Your task to perform on an android device: choose inbox layout in the gmail app Image 0: 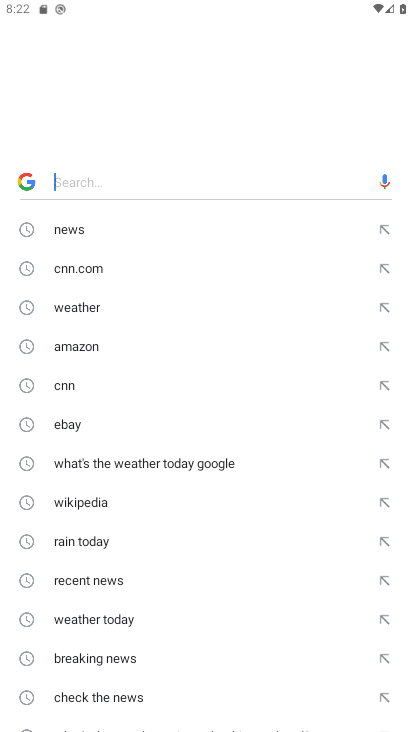
Step 0: click (235, 692)
Your task to perform on an android device: choose inbox layout in the gmail app Image 1: 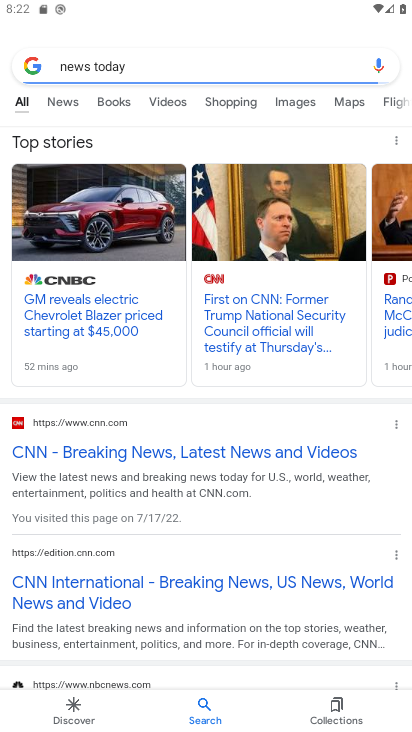
Step 1: click (158, 37)
Your task to perform on an android device: choose inbox layout in the gmail app Image 2: 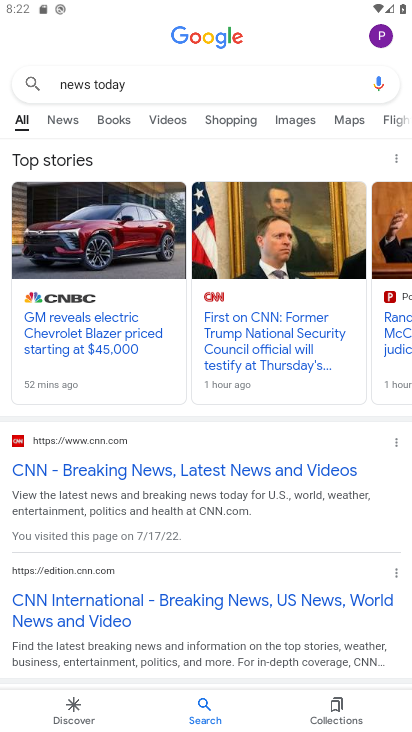
Step 2: click (166, 85)
Your task to perform on an android device: choose inbox layout in the gmail app Image 3: 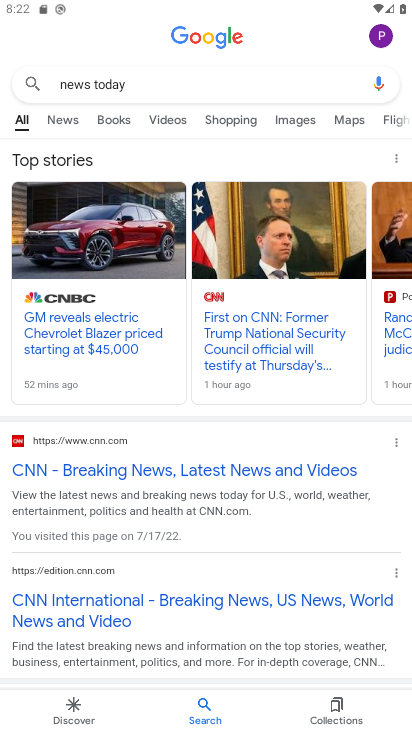
Step 3: click (166, 85)
Your task to perform on an android device: choose inbox layout in the gmail app Image 4: 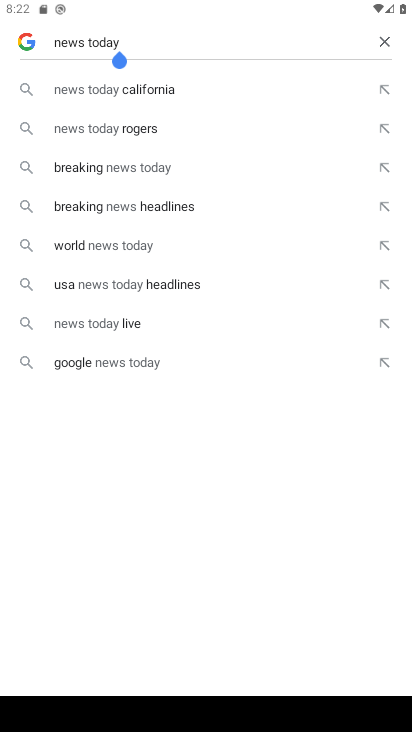
Step 4: click (385, 39)
Your task to perform on an android device: choose inbox layout in the gmail app Image 5: 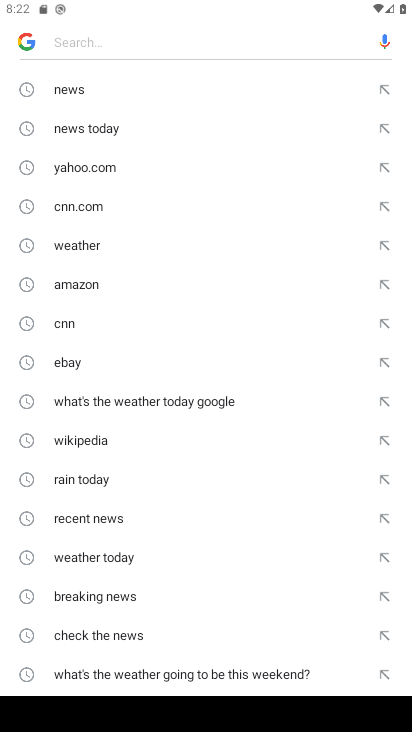
Step 5: click (194, 244)
Your task to perform on an android device: choose inbox layout in the gmail app Image 6: 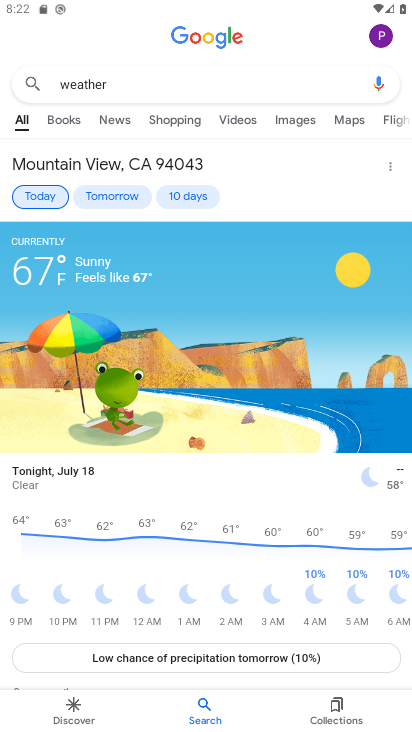
Step 6: click (111, 191)
Your task to perform on an android device: choose inbox layout in the gmail app Image 7: 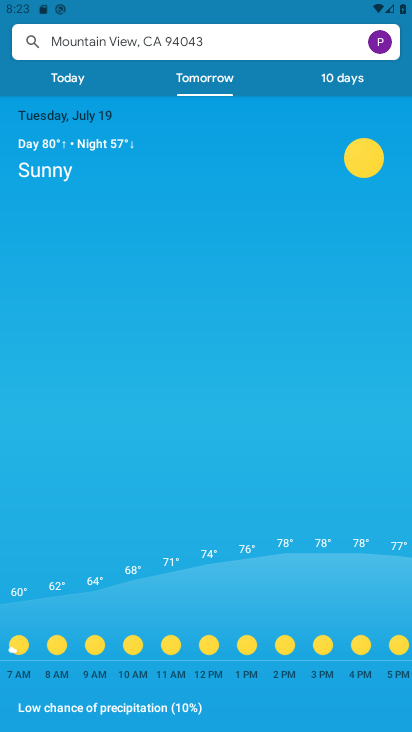
Step 7: task complete